Your task to perform on an android device: Open Chrome and go to settings Image 0: 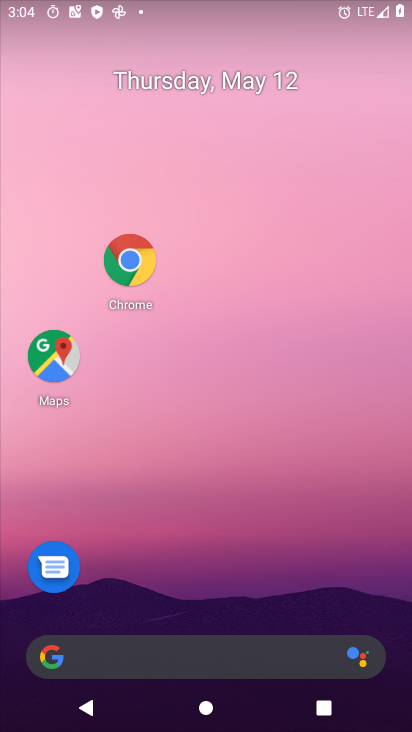
Step 0: click (133, 263)
Your task to perform on an android device: Open Chrome and go to settings Image 1: 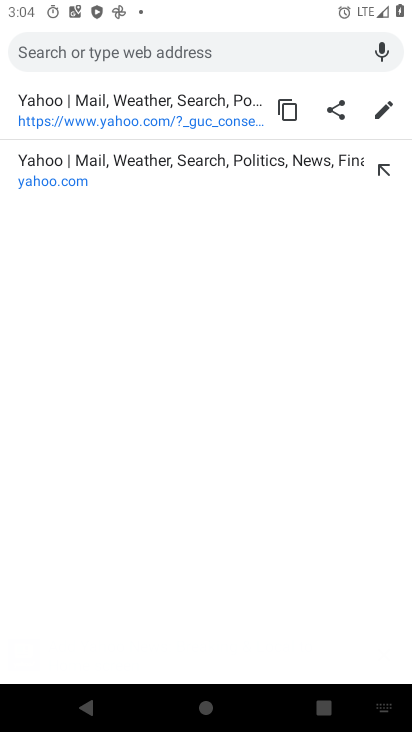
Step 1: click (88, 48)
Your task to perform on an android device: Open Chrome and go to settings Image 2: 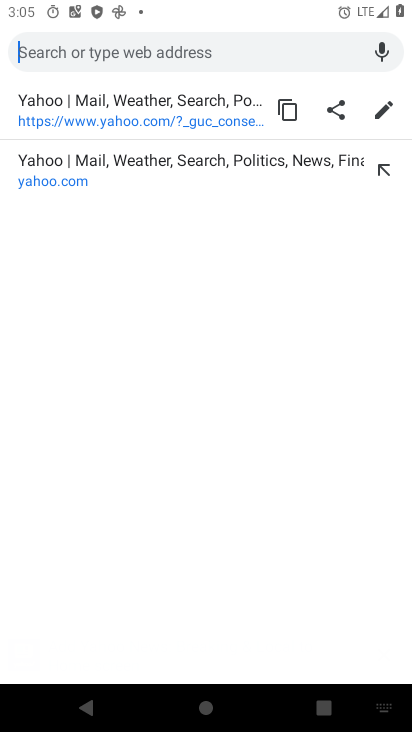
Step 2: press back button
Your task to perform on an android device: Open Chrome and go to settings Image 3: 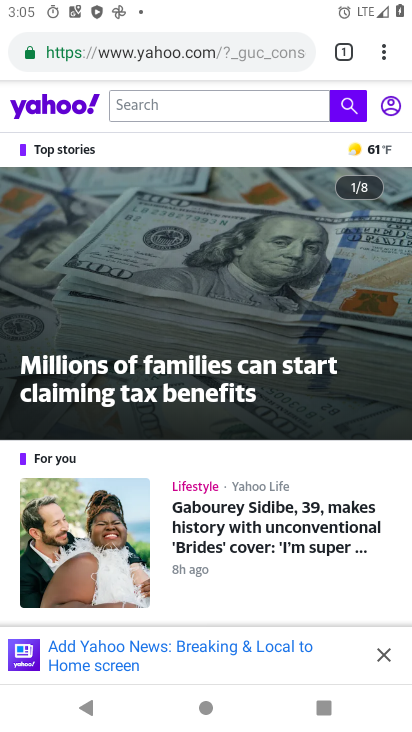
Step 3: click (382, 46)
Your task to perform on an android device: Open Chrome and go to settings Image 4: 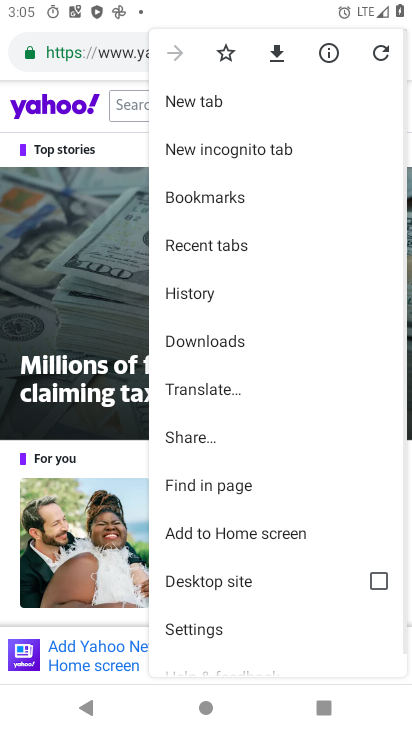
Step 4: click (223, 623)
Your task to perform on an android device: Open Chrome and go to settings Image 5: 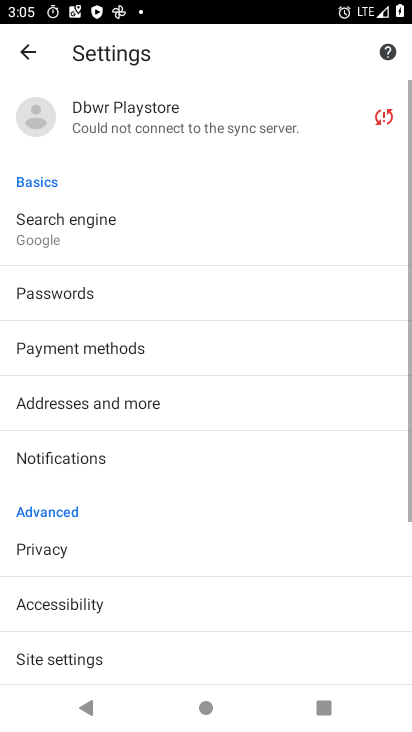
Step 5: drag from (238, 635) to (334, 223)
Your task to perform on an android device: Open Chrome and go to settings Image 6: 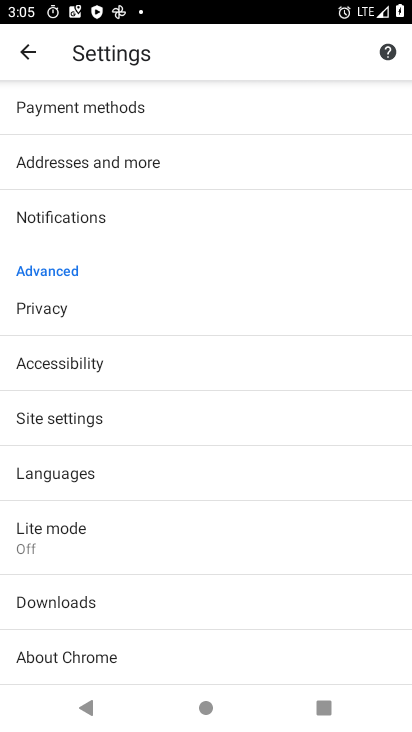
Step 6: click (60, 419)
Your task to perform on an android device: Open Chrome and go to settings Image 7: 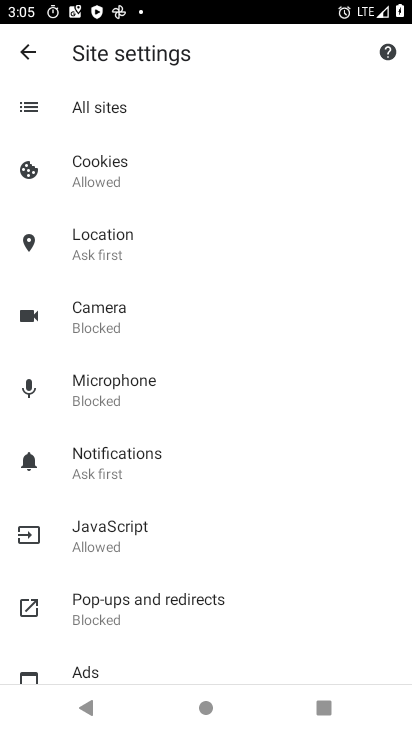
Step 7: task complete